Your task to perform on an android device: turn on wifi Image 0: 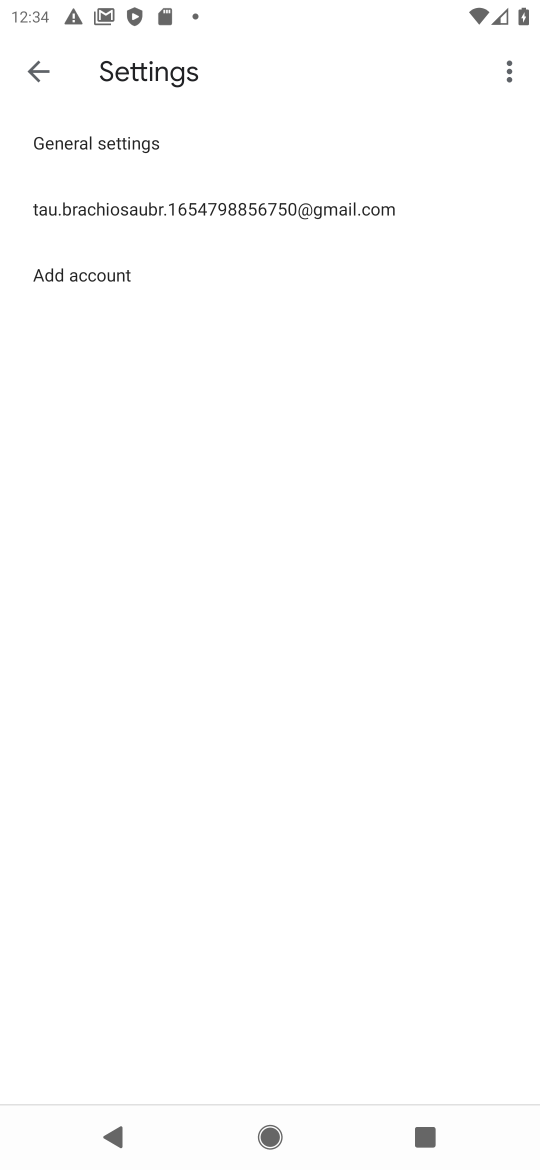
Step 0: press home button
Your task to perform on an android device: turn on wifi Image 1: 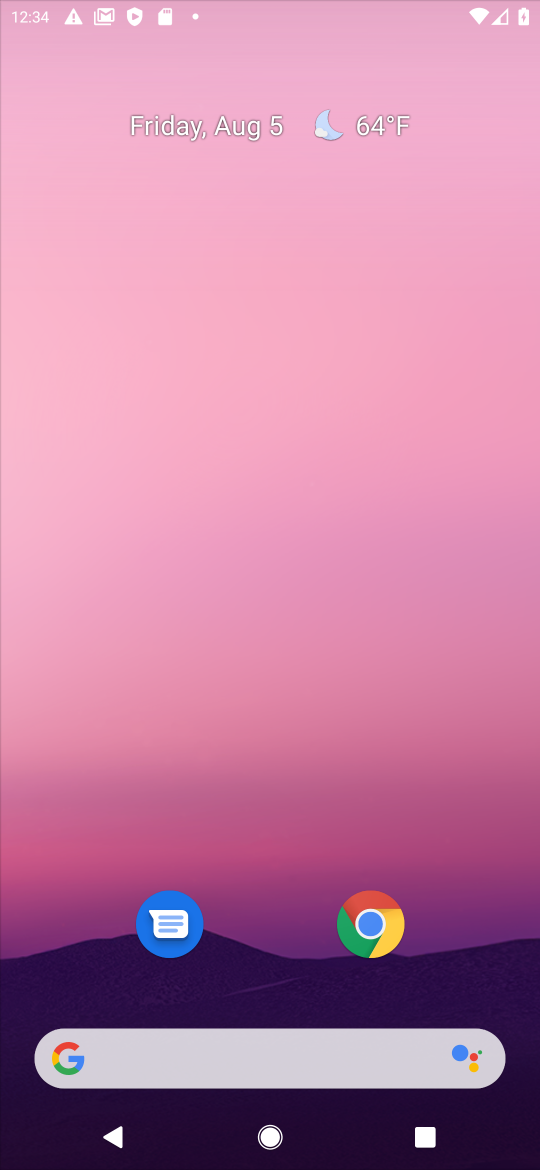
Step 1: task complete